Your task to perform on an android device: Check the news Image 0: 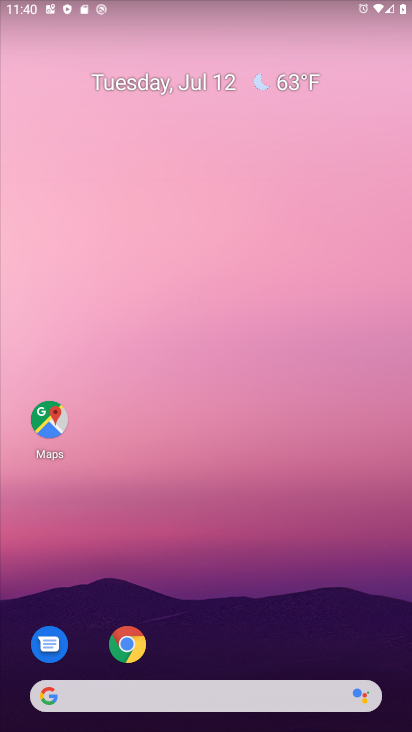
Step 0: drag from (197, 700) to (319, 178)
Your task to perform on an android device: Check the news Image 1: 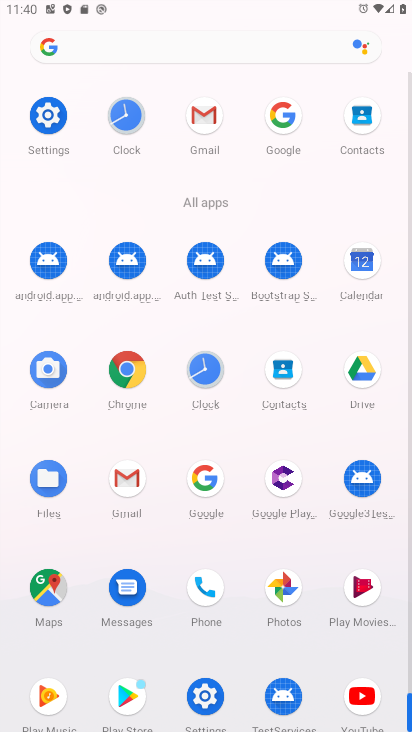
Step 1: click (281, 114)
Your task to perform on an android device: Check the news Image 2: 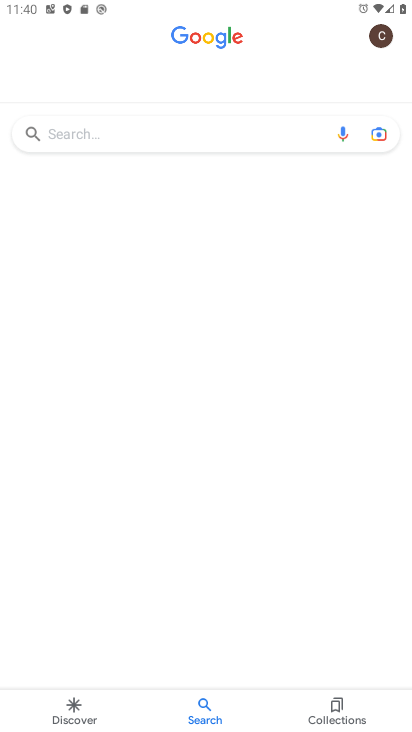
Step 2: click (204, 135)
Your task to perform on an android device: Check the news Image 3: 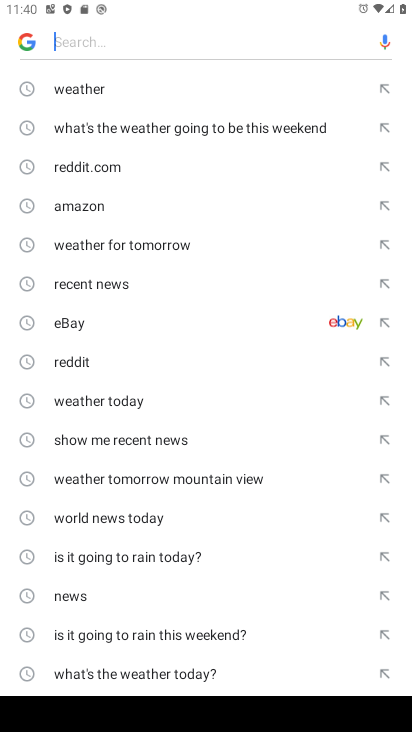
Step 3: click (87, 594)
Your task to perform on an android device: Check the news Image 4: 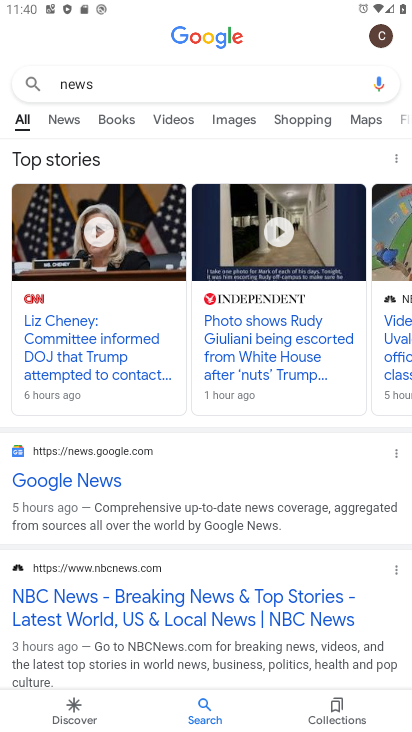
Step 4: click (92, 364)
Your task to perform on an android device: Check the news Image 5: 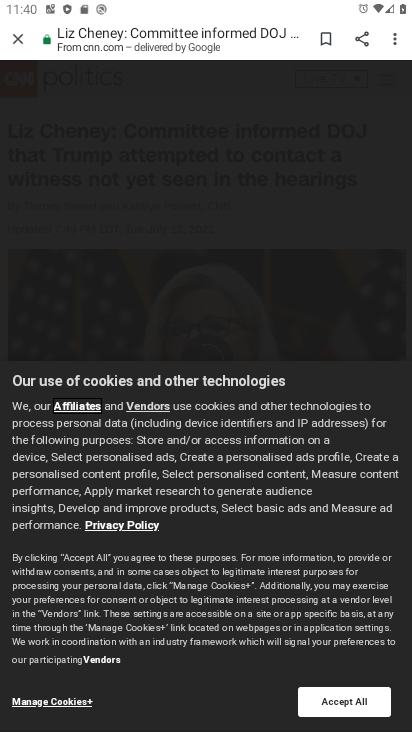
Step 5: click (320, 703)
Your task to perform on an android device: Check the news Image 6: 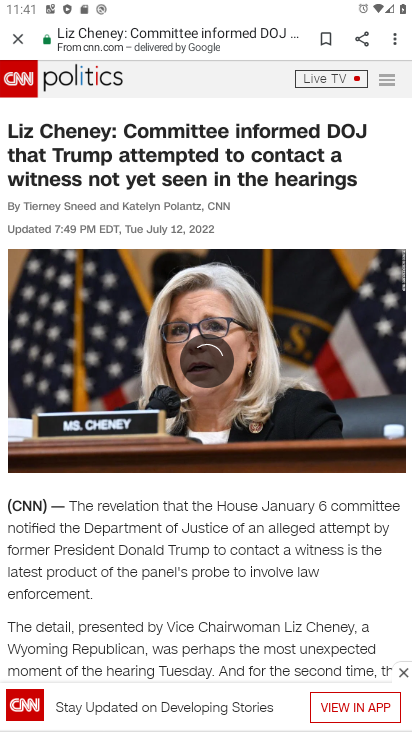
Step 6: task complete